Your task to perform on an android device: delete browsing data in the chrome app Image 0: 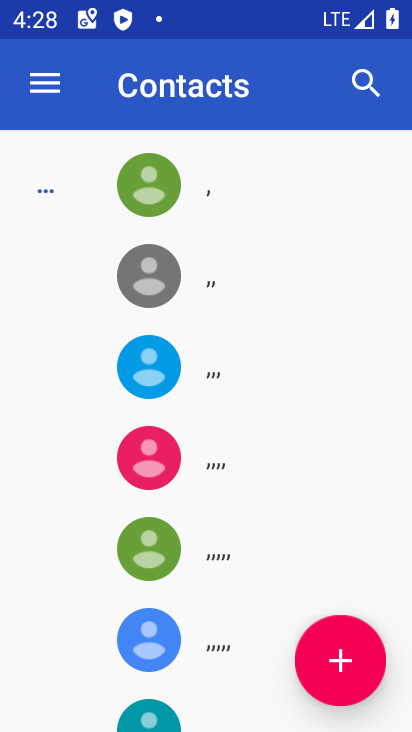
Step 0: press home button
Your task to perform on an android device: delete browsing data in the chrome app Image 1: 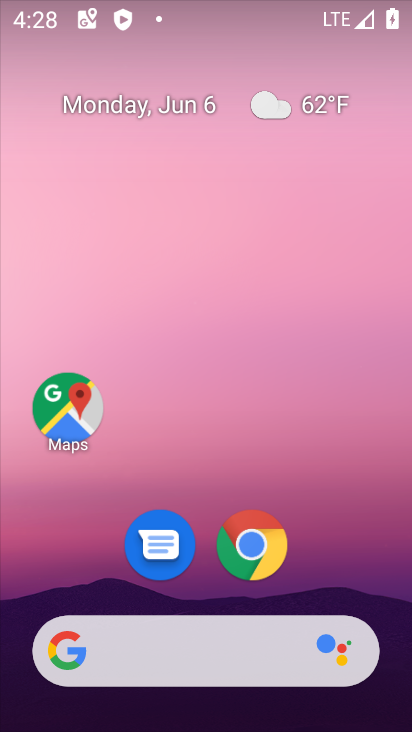
Step 1: click (266, 564)
Your task to perform on an android device: delete browsing data in the chrome app Image 2: 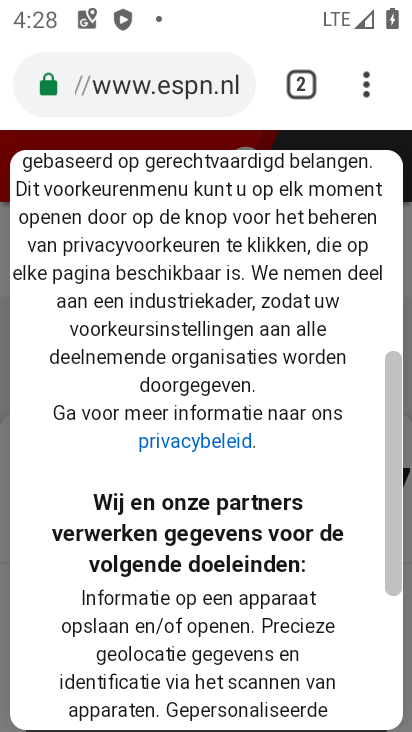
Step 2: click (366, 95)
Your task to perform on an android device: delete browsing data in the chrome app Image 3: 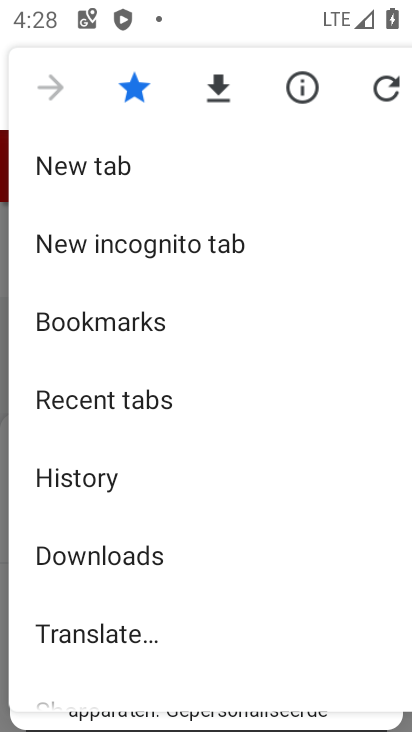
Step 3: click (59, 475)
Your task to perform on an android device: delete browsing data in the chrome app Image 4: 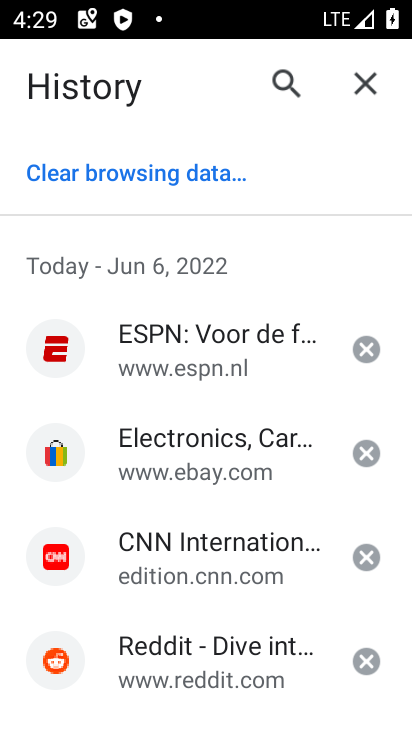
Step 4: click (181, 175)
Your task to perform on an android device: delete browsing data in the chrome app Image 5: 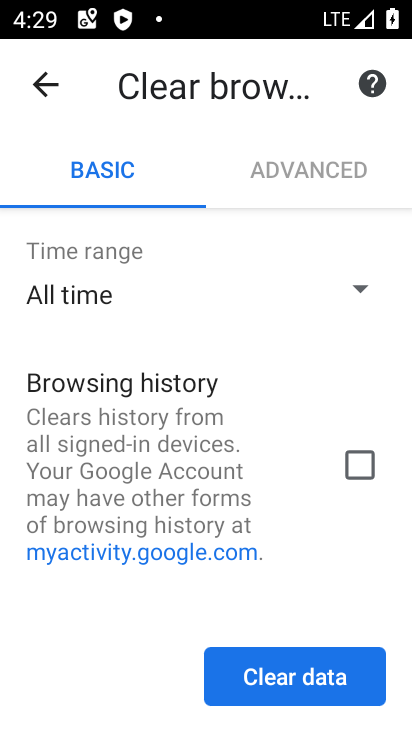
Step 5: drag from (211, 586) to (184, 228)
Your task to perform on an android device: delete browsing data in the chrome app Image 6: 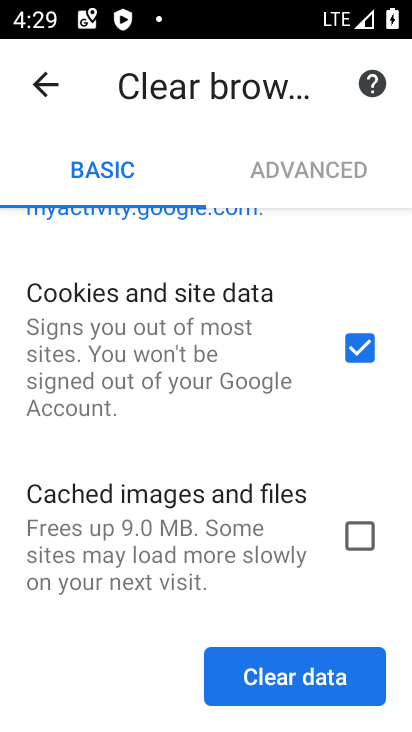
Step 6: click (359, 350)
Your task to perform on an android device: delete browsing data in the chrome app Image 7: 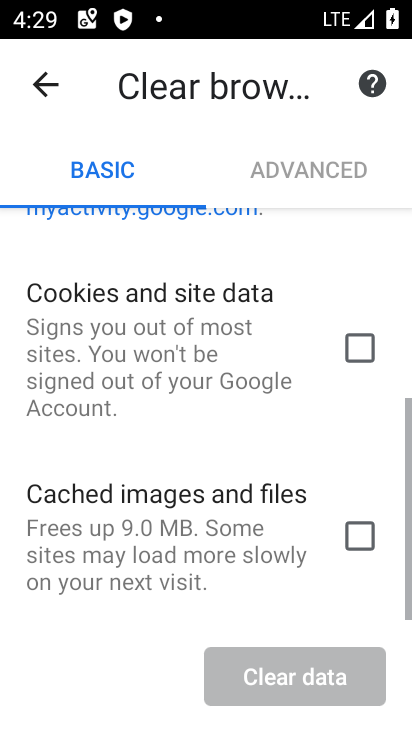
Step 7: drag from (284, 247) to (272, 521)
Your task to perform on an android device: delete browsing data in the chrome app Image 8: 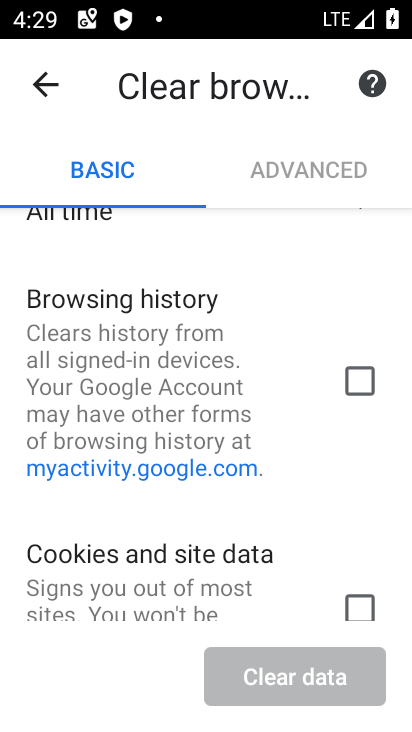
Step 8: click (356, 383)
Your task to perform on an android device: delete browsing data in the chrome app Image 9: 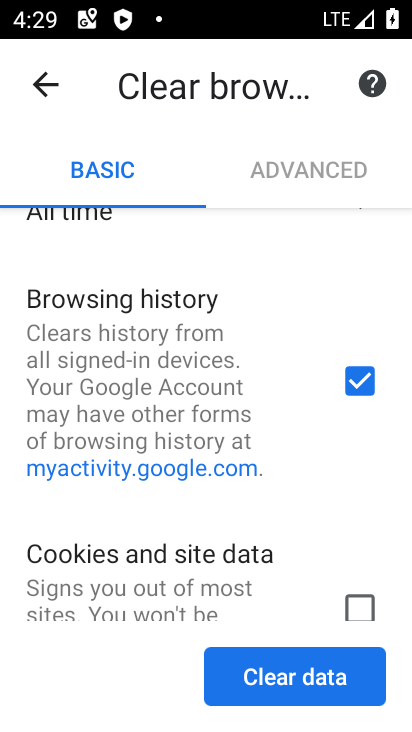
Step 9: click (306, 678)
Your task to perform on an android device: delete browsing data in the chrome app Image 10: 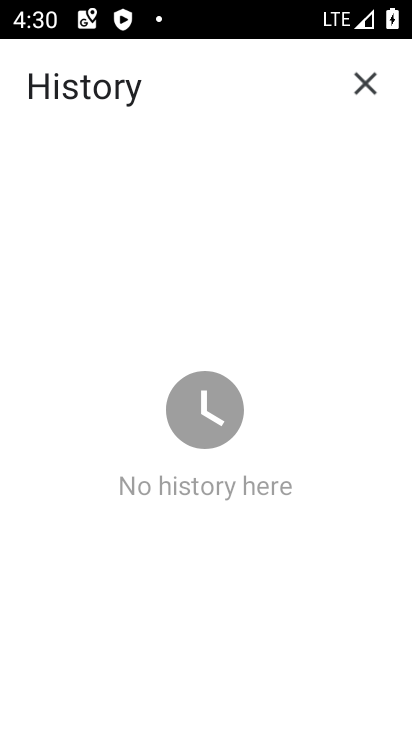
Step 10: task complete